Your task to perform on an android device: Go to location settings Image 0: 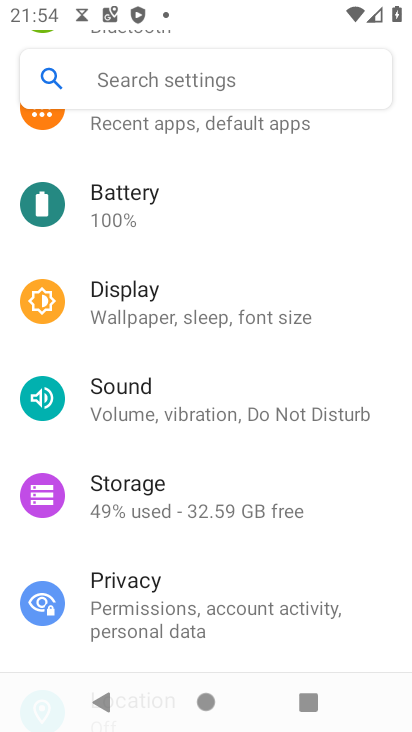
Step 0: press home button
Your task to perform on an android device: Go to location settings Image 1: 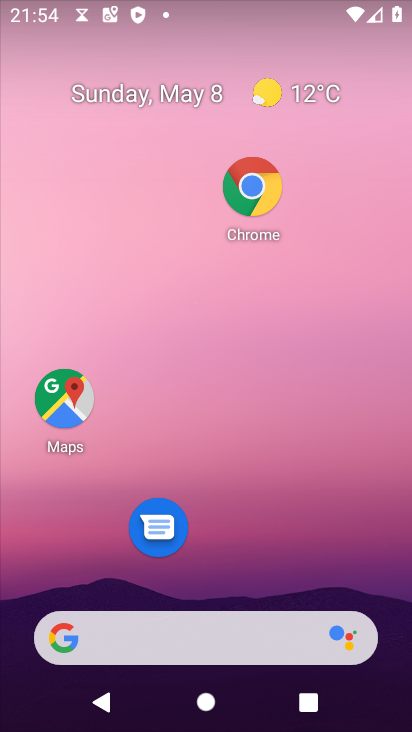
Step 1: drag from (338, 368) to (340, 251)
Your task to perform on an android device: Go to location settings Image 2: 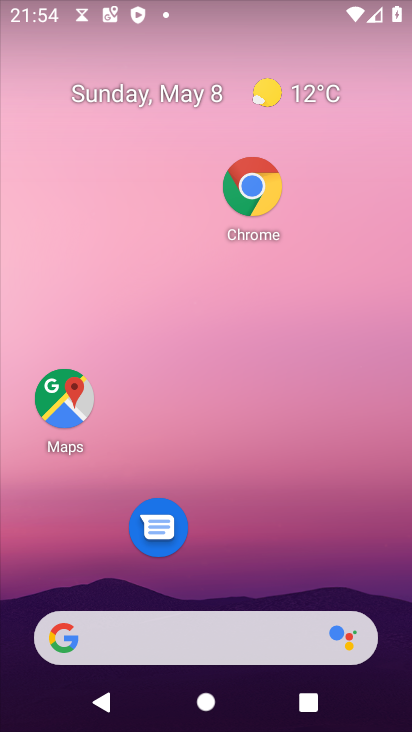
Step 2: drag from (292, 479) to (317, 167)
Your task to perform on an android device: Go to location settings Image 3: 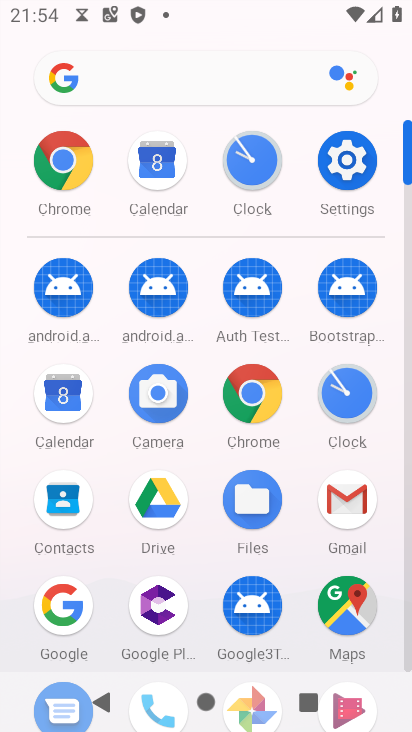
Step 3: click (341, 156)
Your task to perform on an android device: Go to location settings Image 4: 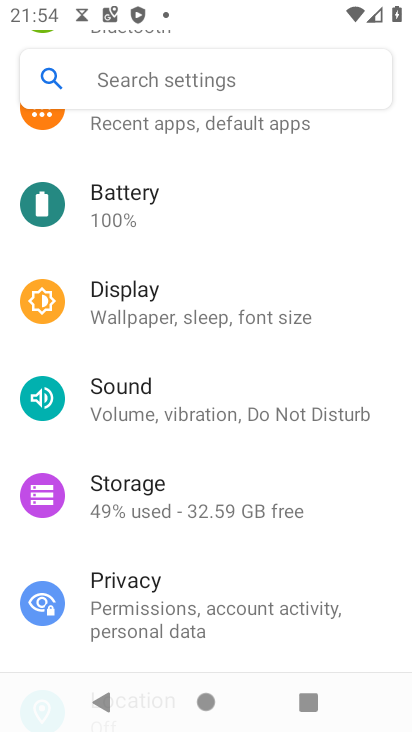
Step 4: drag from (209, 557) to (245, 225)
Your task to perform on an android device: Go to location settings Image 5: 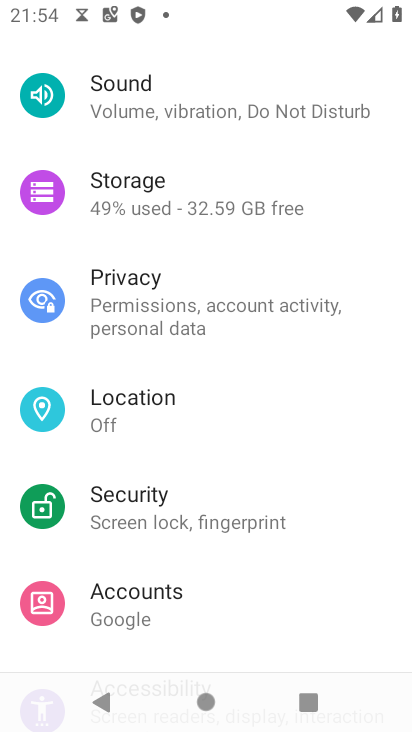
Step 5: click (147, 419)
Your task to perform on an android device: Go to location settings Image 6: 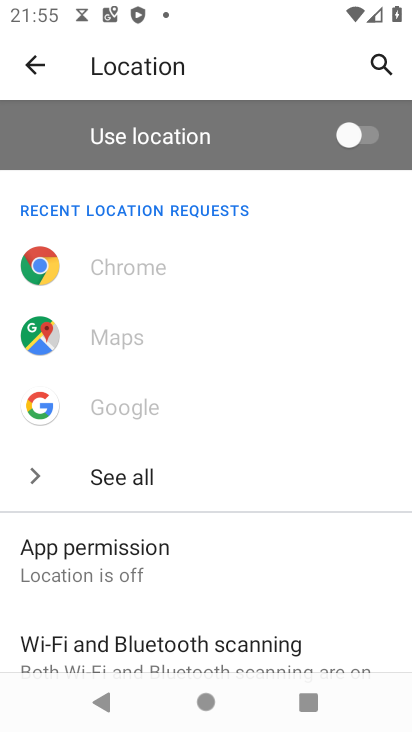
Step 6: task complete